Your task to perform on an android device: Go to Maps Image 0: 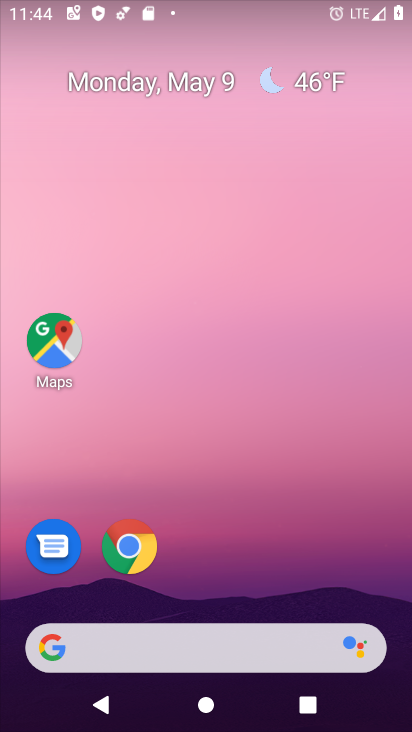
Step 0: click (60, 344)
Your task to perform on an android device: Go to Maps Image 1: 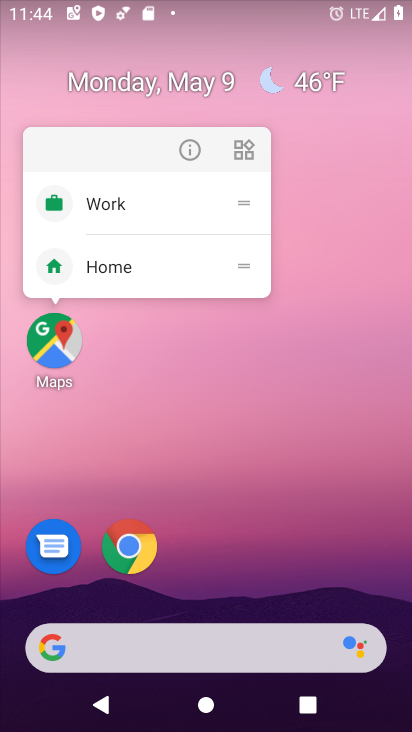
Step 1: click (60, 344)
Your task to perform on an android device: Go to Maps Image 2: 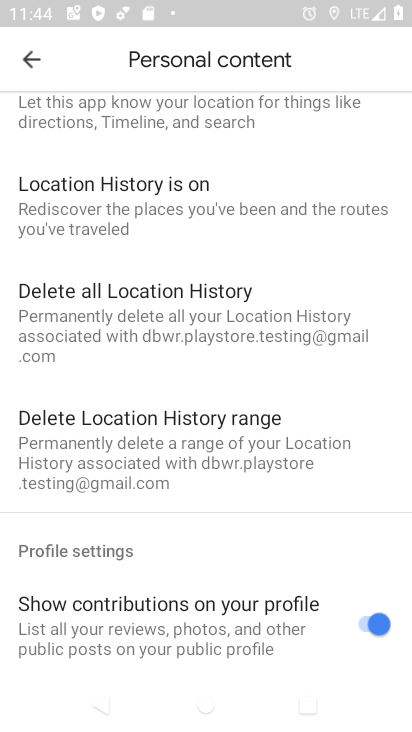
Step 2: click (32, 64)
Your task to perform on an android device: Go to Maps Image 3: 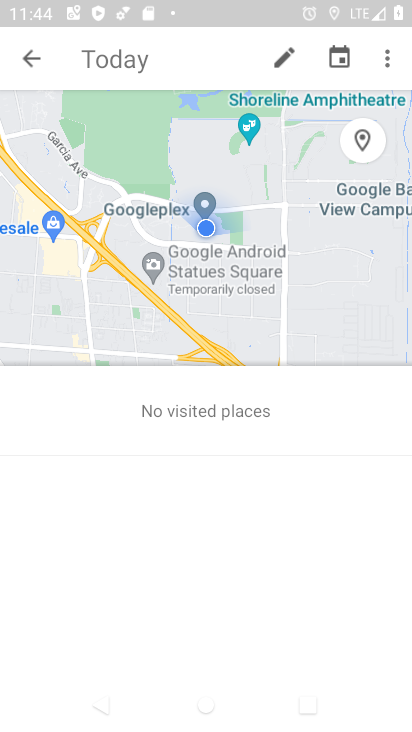
Step 3: task complete